Your task to perform on an android device: move an email to a new category in the gmail app Image 0: 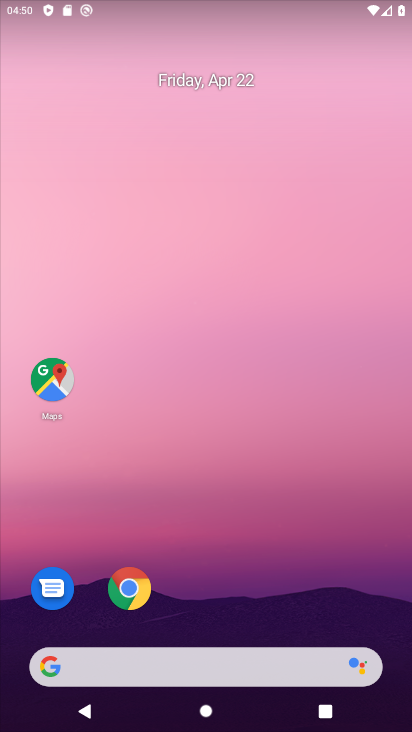
Step 0: drag from (251, 406) to (247, 57)
Your task to perform on an android device: move an email to a new category in the gmail app Image 1: 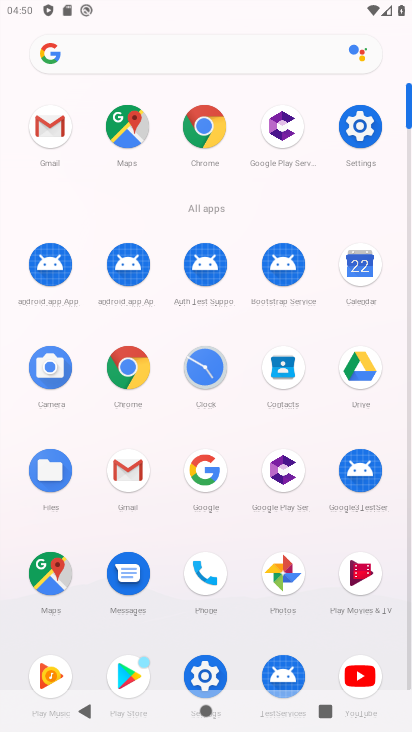
Step 1: click (131, 469)
Your task to perform on an android device: move an email to a new category in the gmail app Image 2: 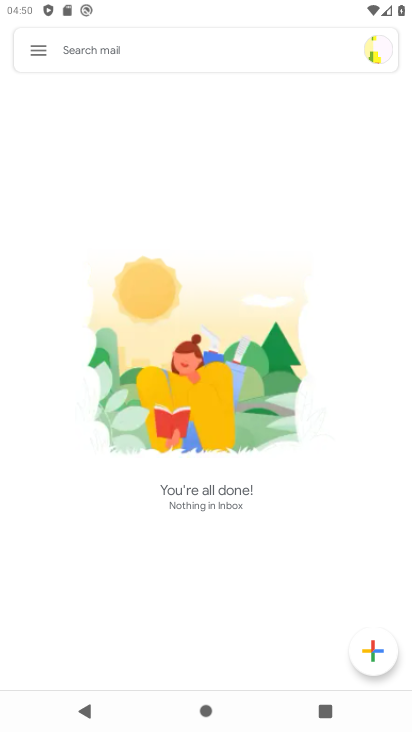
Step 2: click (43, 44)
Your task to perform on an android device: move an email to a new category in the gmail app Image 3: 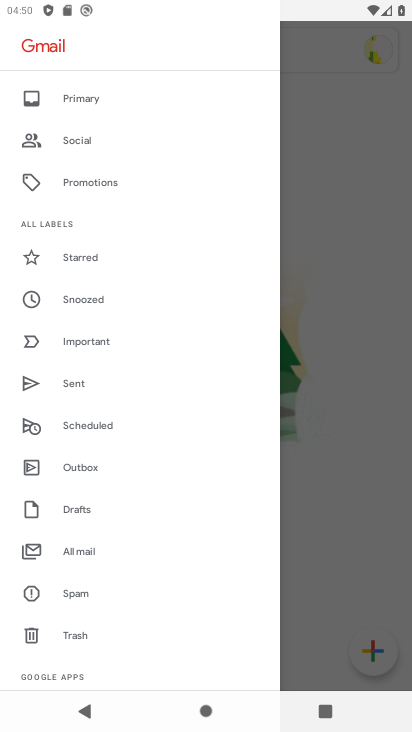
Step 3: click (87, 547)
Your task to perform on an android device: move an email to a new category in the gmail app Image 4: 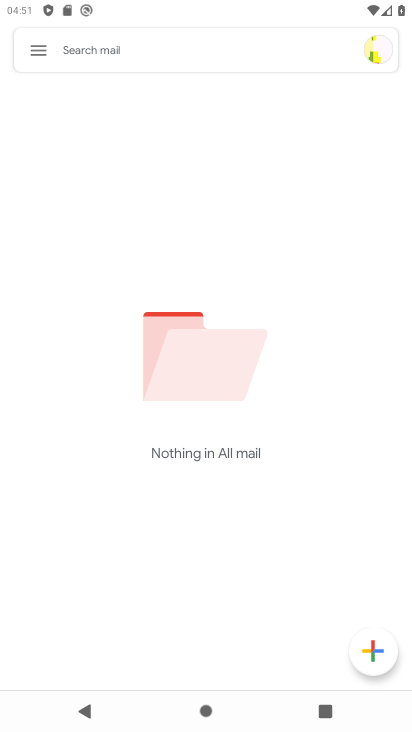
Step 4: task complete